Your task to perform on an android device: stop showing notifications on the lock screen Image 0: 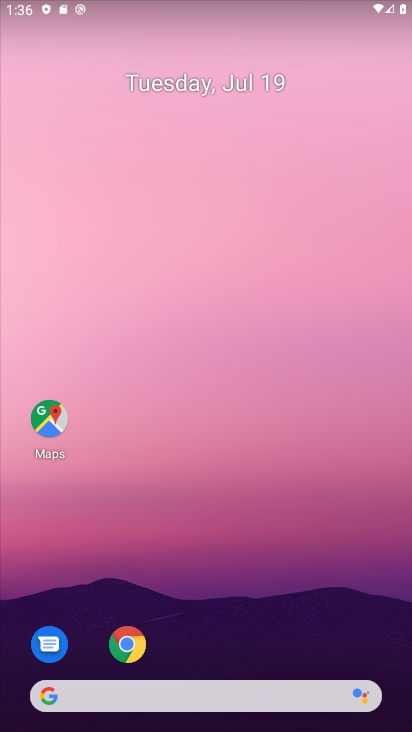
Step 0: drag from (269, 555) to (269, 236)
Your task to perform on an android device: stop showing notifications on the lock screen Image 1: 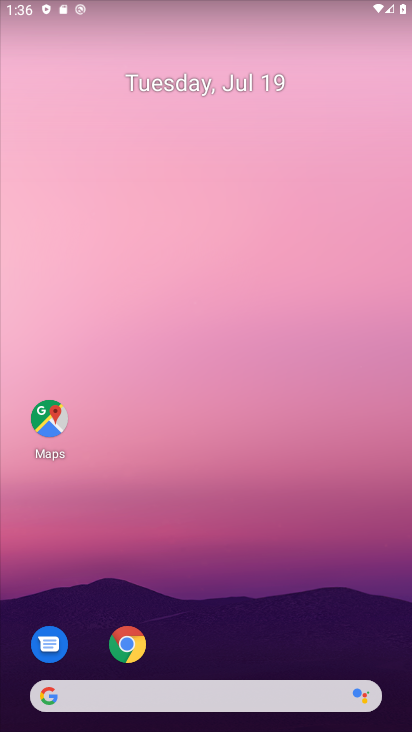
Step 1: drag from (276, 691) to (198, 219)
Your task to perform on an android device: stop showing notifications on the lock screen Image 2: 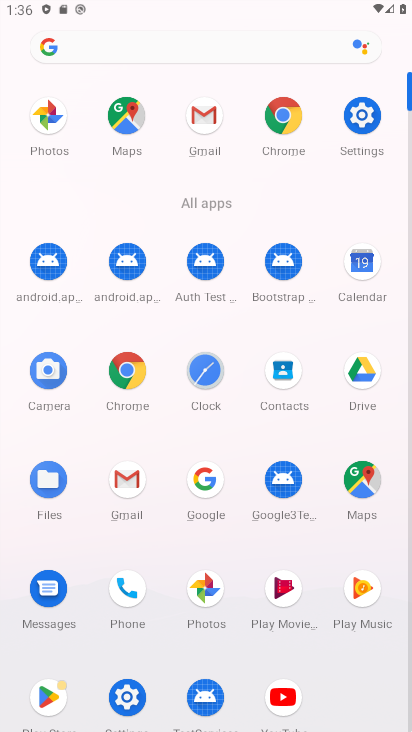
Step 2: click (205, 367)
Your task to perform on an android device: stop showing notifications on the lock screen Image 3: 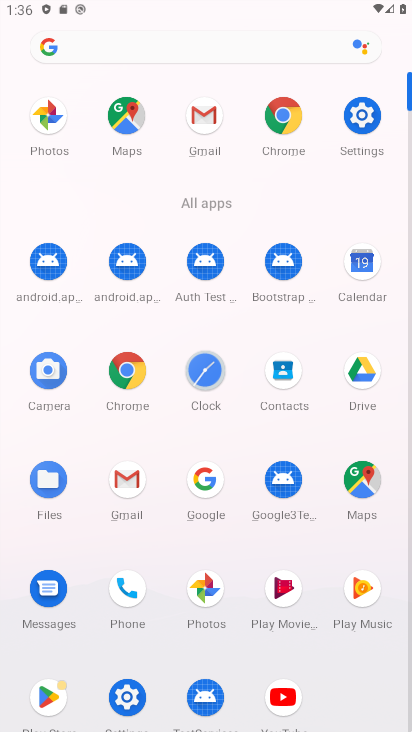
Step 3: click (206, 371)
Your task to perform on an android device: stop showing notifications on the lock screen Image 4: 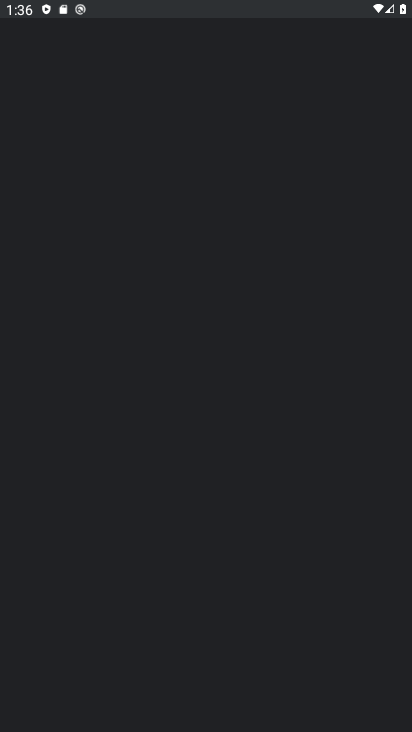
Step 4: click (206, 371)
Your task to perform on an android device: stop showing notifications on the lock screen Image 5: 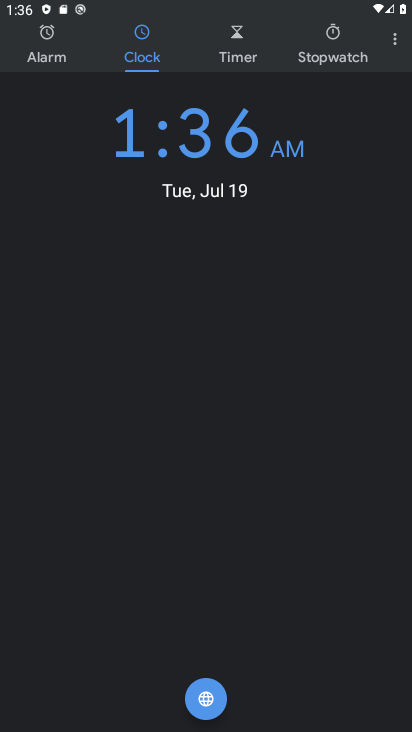
Step 5: press back button
Your task to perform on an android device: stop showing notifications on the lock screen Image 6: 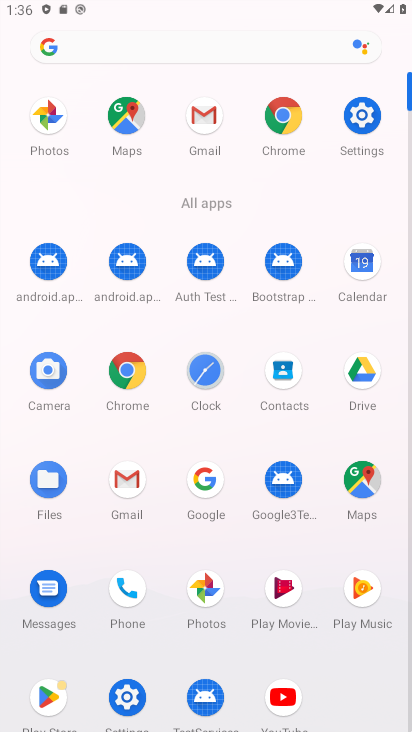
Step 6: click (359, 109)
Your task to perform on an android device: stop showing notifications on the lock screen Image 7: 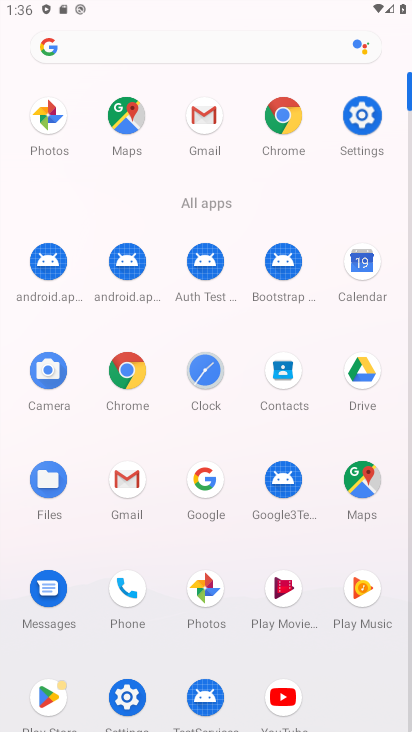
Step 7: click (360, 109)
Your task to perform on an android device: stop showing notifications on the lock screen Image 8: 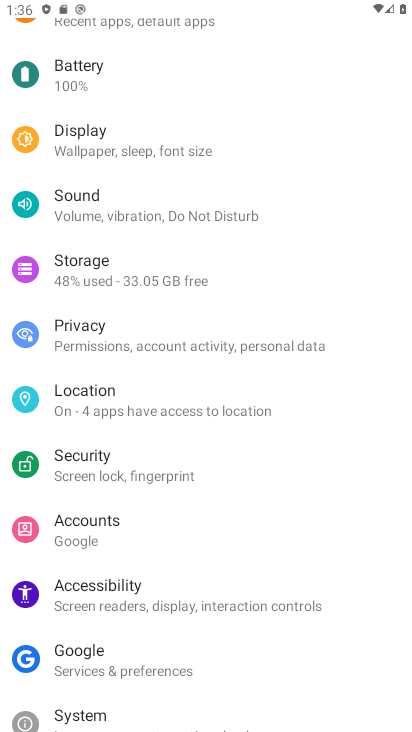
Step 8: drag from (162, 489) to (106, 126)
Your task to perform on an android device: stop showing notifications on the lock screen Image 9: 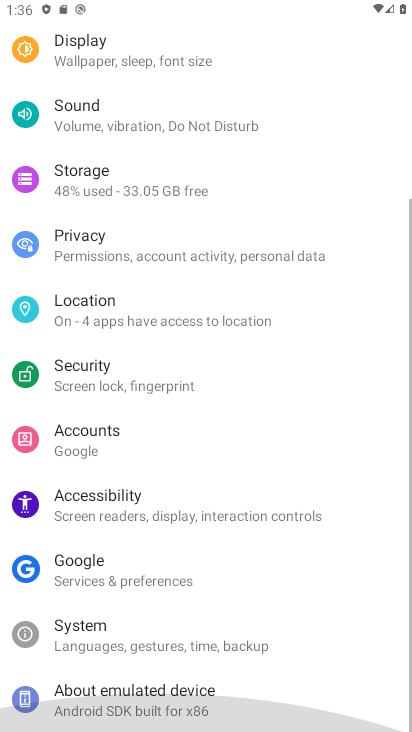
Step 9: drag from (178, 478) to (152, 218)
Your task to perform on an android device: stop showing notifications on the lock screen Image 10: 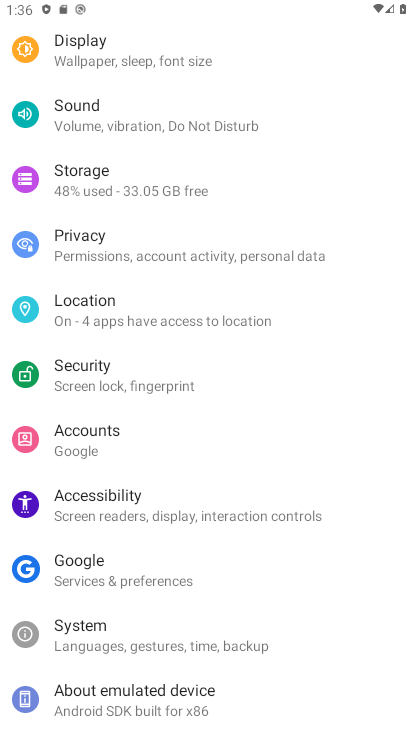
Step 10: drag from (83, 112) to (132, 487)
Your task to perform on an android device: stop showing notifications on the lock screen Image 11: 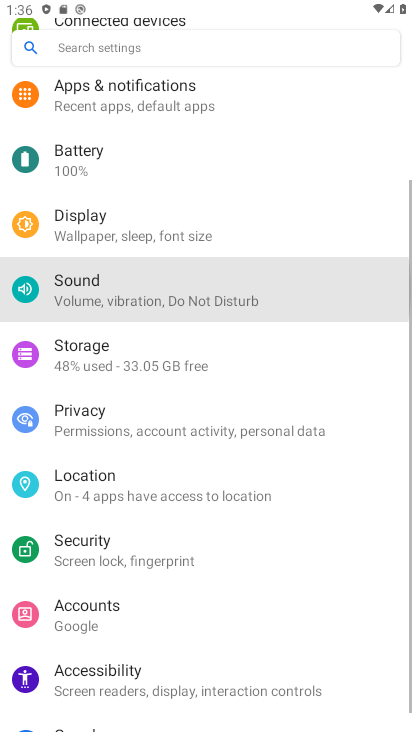
Step 11: drag from (110, 224) to (131, 538)
Your task to perform on an android device: stop showing notifications on the lock screen Image 12: 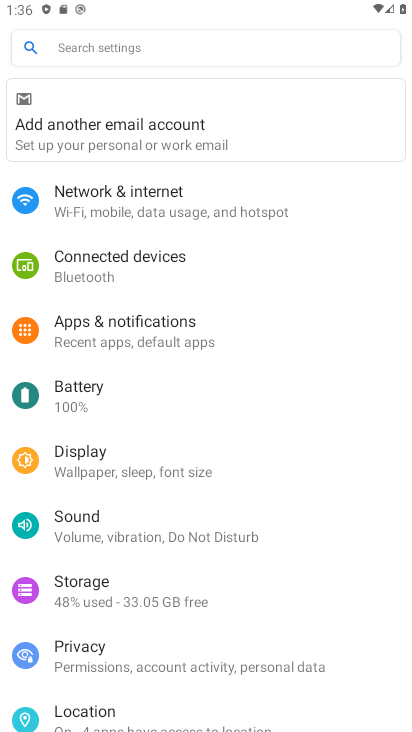
Step 12: click (82, 325)
Your task to perform on an android device: stop showing notifications on the lock screen Image 13: 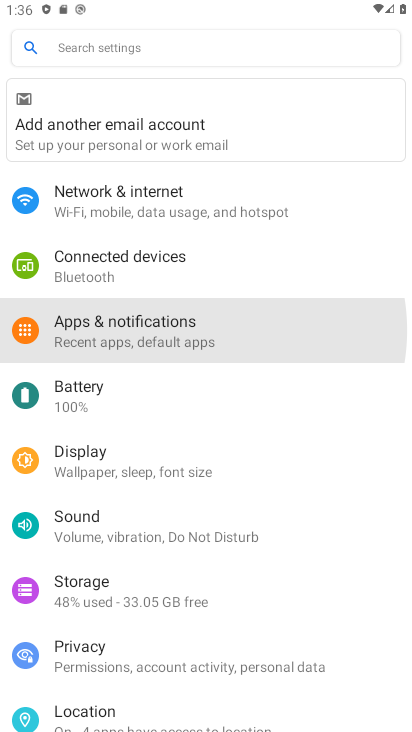
Step 13: click (83, 324)
Your task to perform on an android device: stop showing notifications on the lock screen Image 14: 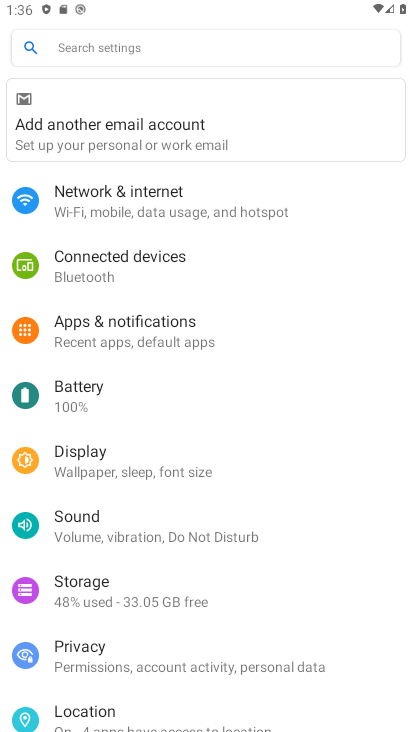
Step 14: click (83, 329)
Your task to perform on an android device: stop showing notifications on the lock screen Image 15: 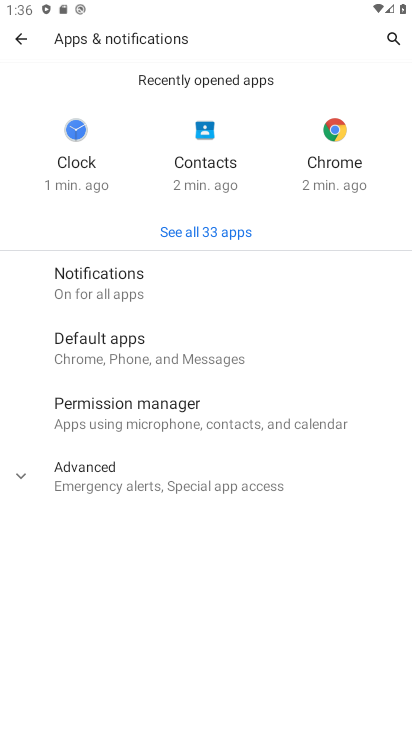
Step 15: click (96, 286)
Your task to perform on an android device: stop showing notifications on the lock screen Image 16: 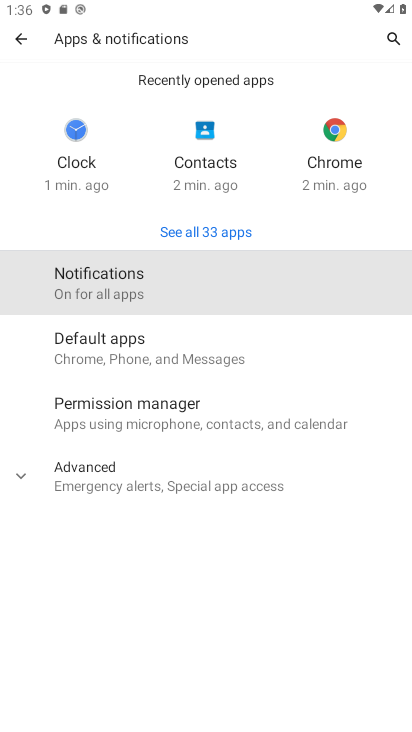
Step 16: click (97, 286)
Your task to perform on an android device: stop showing notifications on the lock screen Image 17: 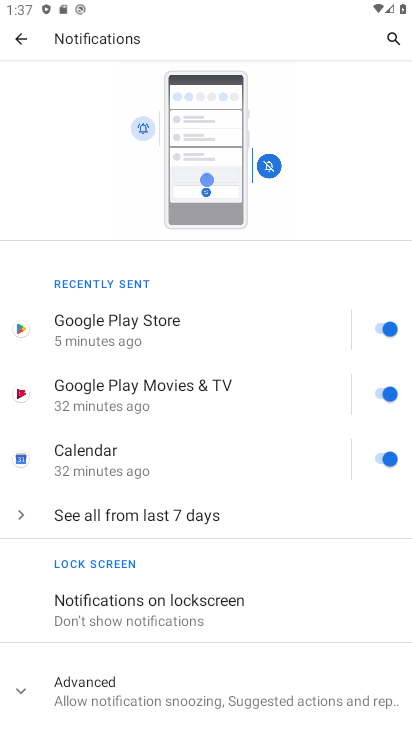
Step 17: click (118, 595)
Your task to perform on an android device: stop showing notifications on the lock screen Image 18: 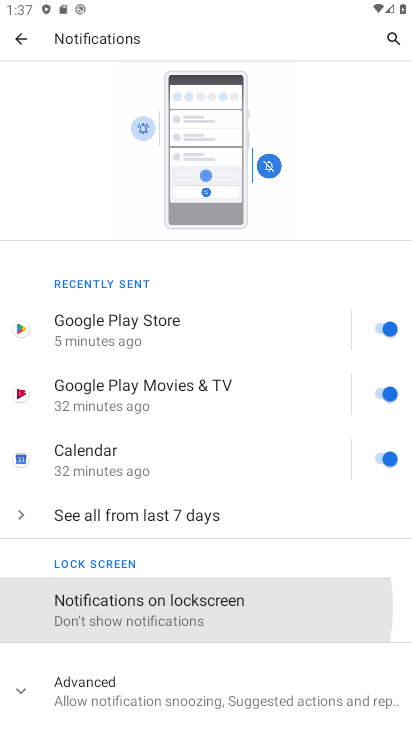
Step 18: click (114, 597)
Your task to perform on an android device: stop showing notifications on the lock screen Image 19: 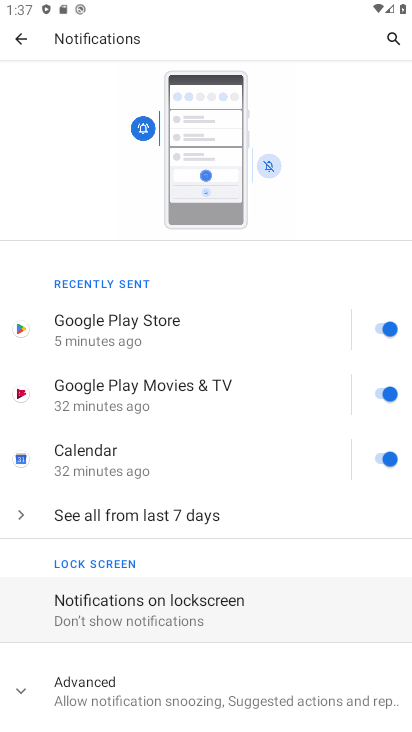
Step 19: click (114, 597)
Your task to perform on an android device: stop showing notifications on the lock screen Image 20: 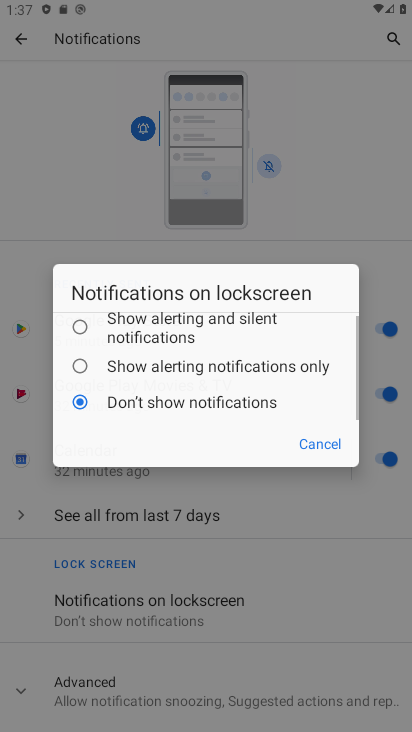
Step 20: click (114, 597)
Your task to perform on an android device: stop showing notifications on the lock screen Image 21: 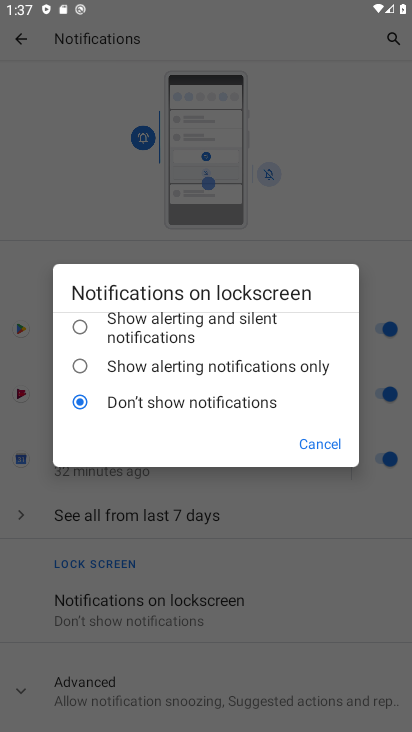
Step 21: click (311, 435)
Your task to perform on an android device: stop showing notifications on the lock screen Image 22: 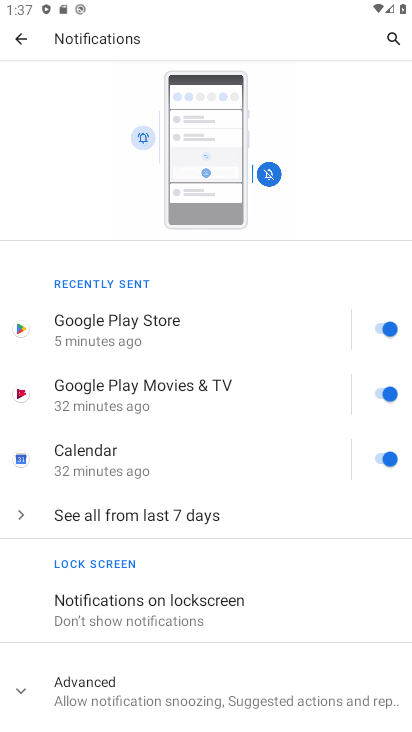
Step 22: task complete